Your task to perform on an android device: Toggle the flashlight Image 0: 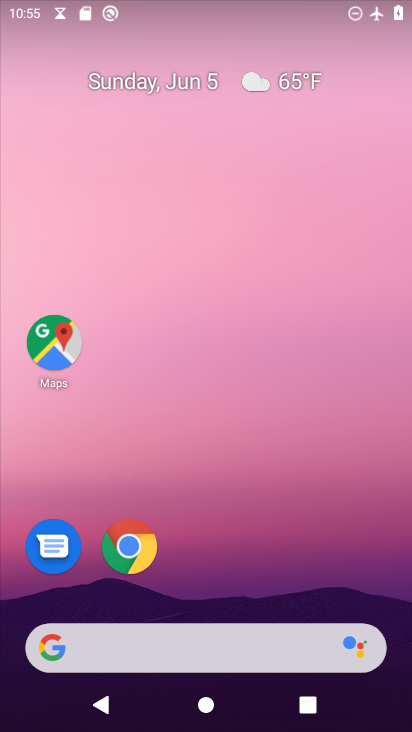
Step 0: drag from (204, 575) to (252, 361)
Your task to perform on an android device: Toggle the flashlight Image 1: 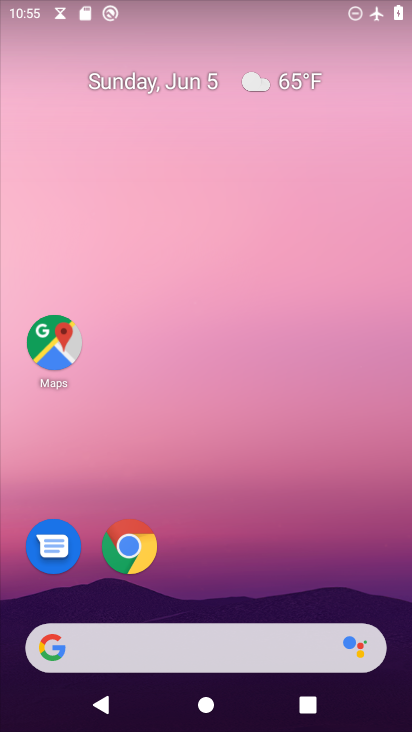
Step 1: drag from (218, 601) to (297, 164)
Your task to perform on an android device: Toggle the flashlight Image 2: 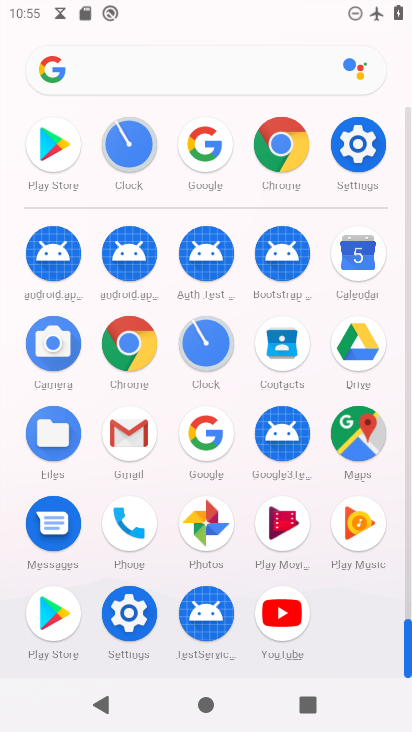
Step 2: click (368, 138)
Your task to perform on an android device: Toggle the flashlight Image 3: 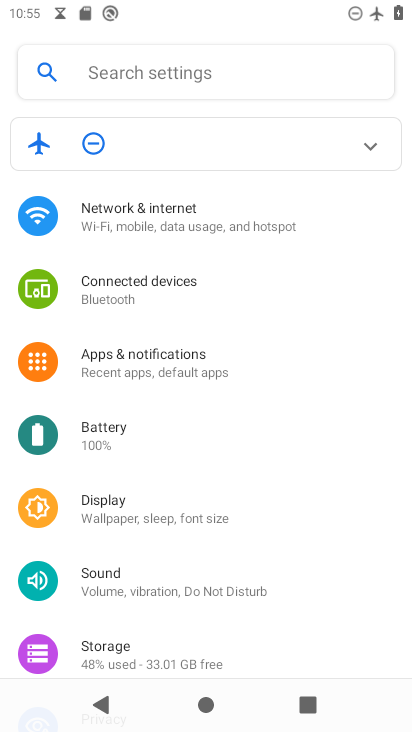
Step 3: click (193, 79)
Your task to perform on an android device: Toggle the flashlight Image 4: 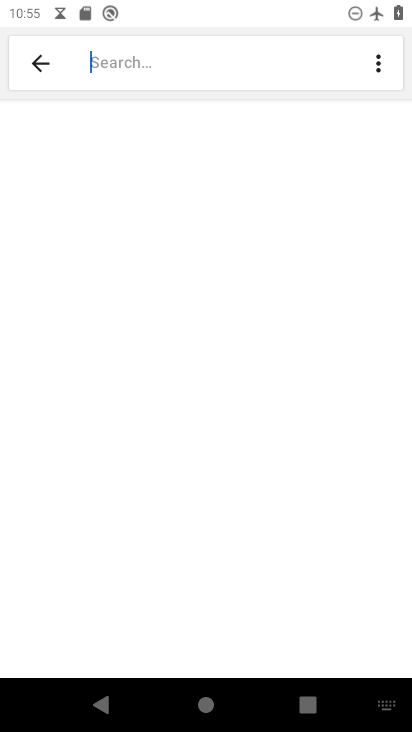
Step 4: type "flashlight"
Your task to perform on an android device: Toggle the flashlight Image 5: 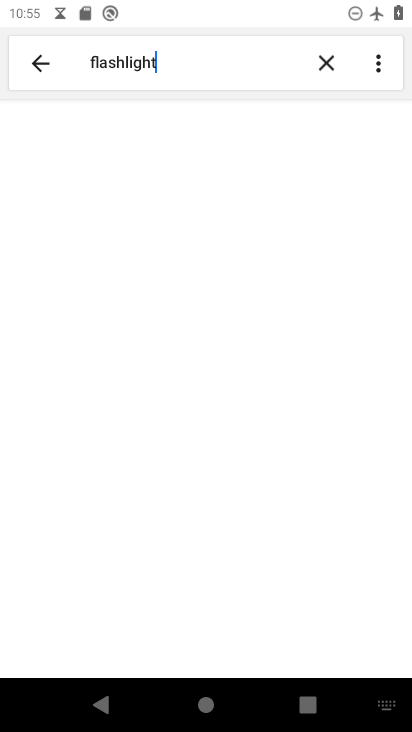
Step 5: type ""
Your task to perform on an android device: Toggle the flashlight Image 6: 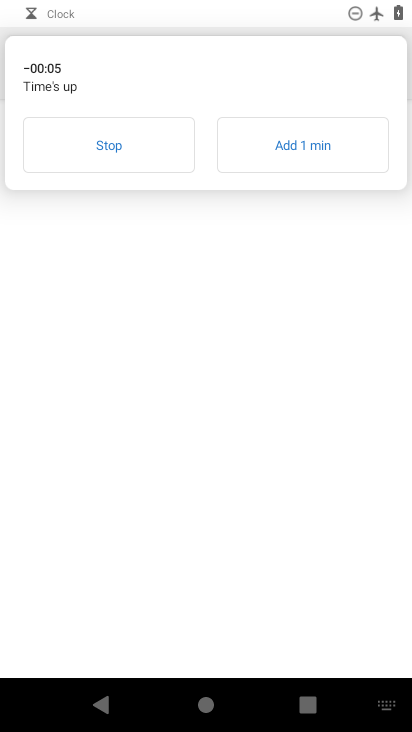
Step 6: click (58, 153)
Your task to perform on an android device: Toggle the flashlight Image 7: 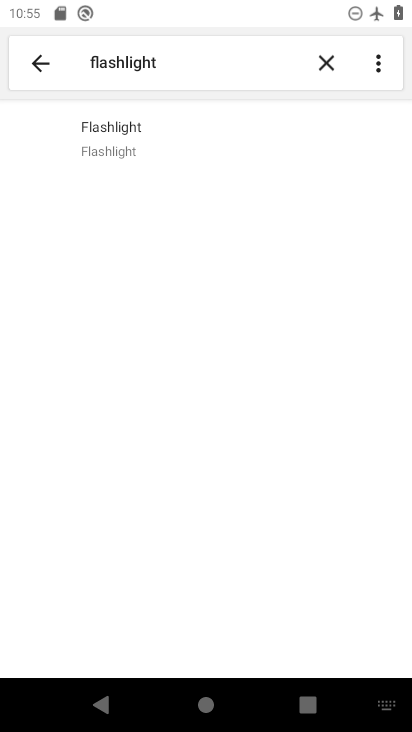
Step 7: click (82, 139)
Your task to perform on an android device: Toggle the flashlight Image 8: 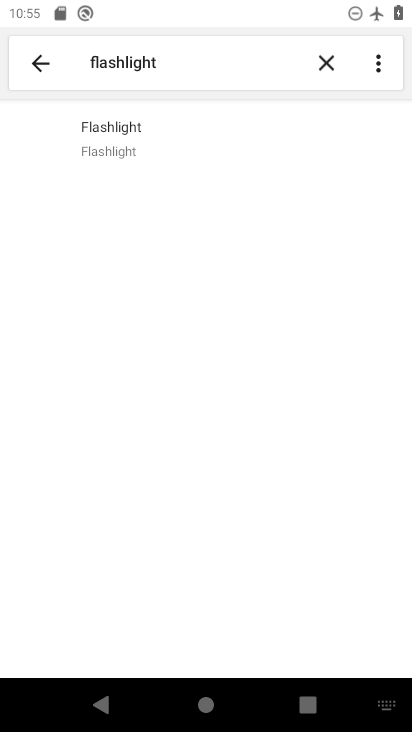
Step 8: task complete